Your task to perform on an android device: turn off notifications in google photos Image 0: 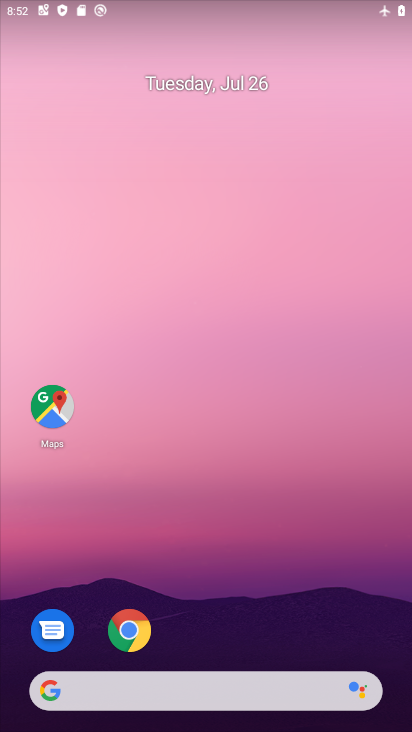
Step 0: drag from (252, 635) to (281, 20)
Your task to perform on an android device: turn off notifications in google photos Image 1: 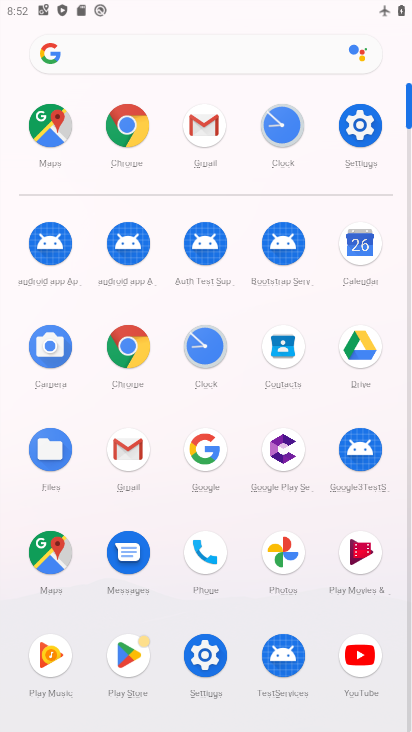
Step 1: click (274, 557)
Your task to perform on an android device: turn off notifications in google photos Image 2: 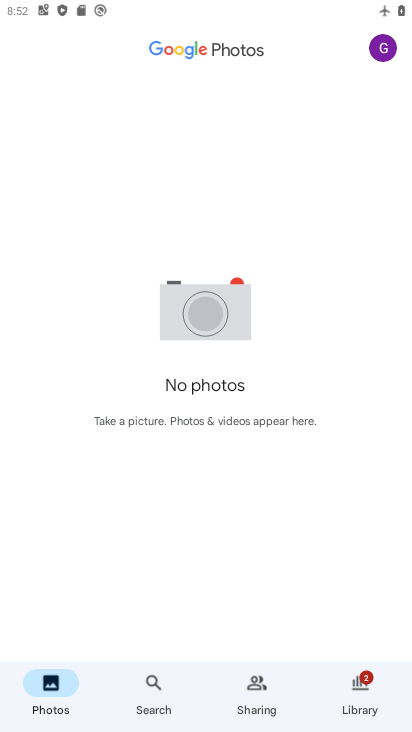
Step 2: task complete